Your task to perform on an android device: Open Google Chrome Image 0: 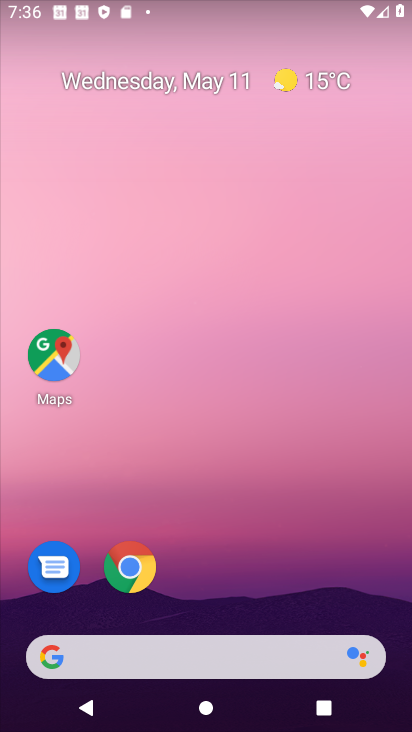
Step 0: drag from (170, 650) to (262, 218)
Your task to perform on an android device: Open Google Chrome Image 1: 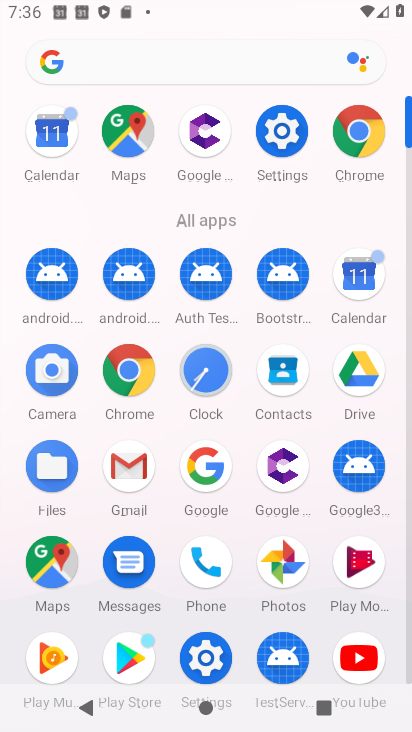
Step 1: click (361, 138)
Your task to perform on an android device: Open Google Chrome Image 2: 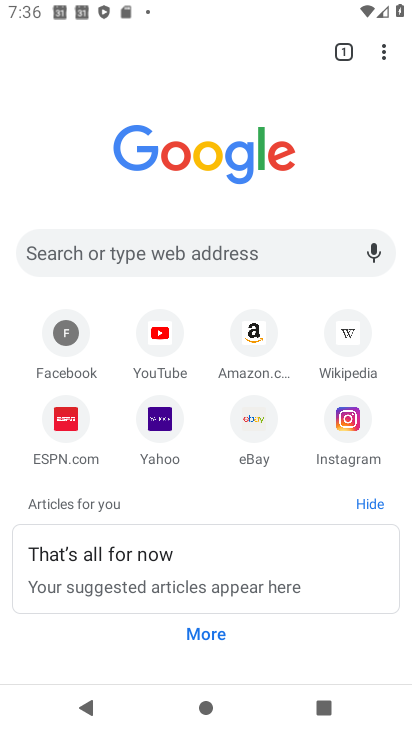
Step 2: task complete